Your task to perform on an android device: Go to Yahoo.com Image 0: 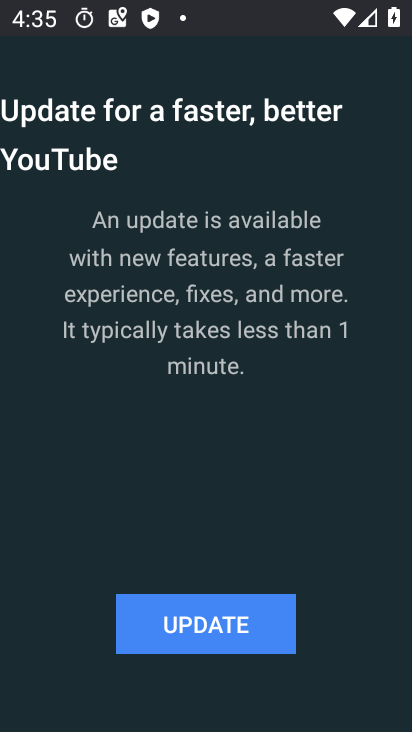
Step 0: press home button
Your task to perform on an android device: Go to Yahoo.com Image 1: 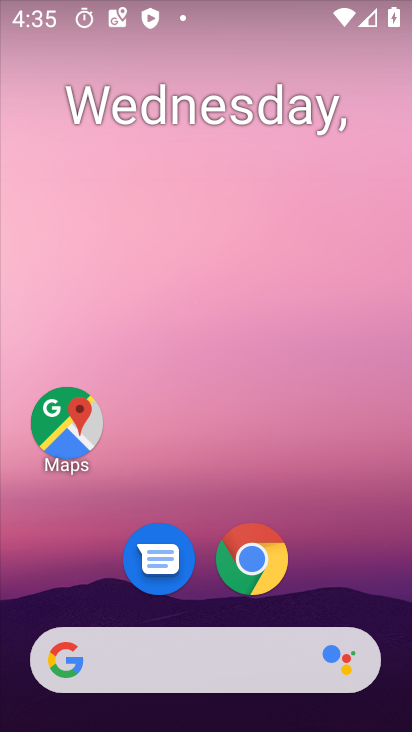
Step 1: click (262, 556)
Your task to perform on an android device: Go to Yahoo.com Image 2: 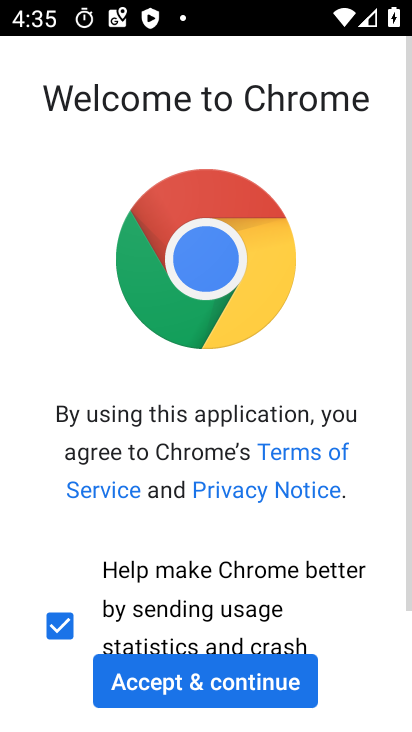
Step 2: click (244, 671)
Your task to perform on an android device: Go to Yahoo.com Image 3: 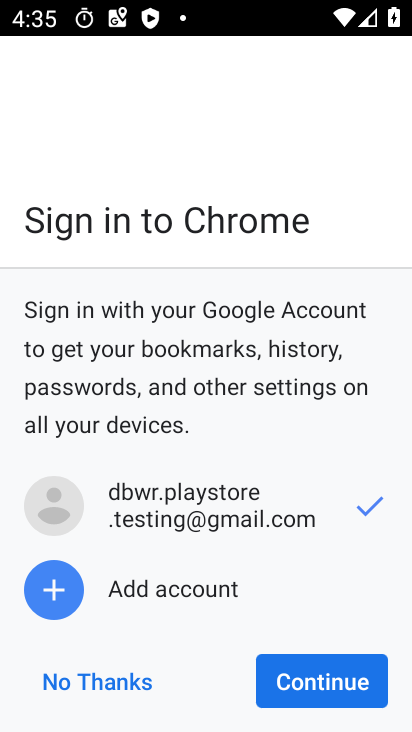
Step 3: click (371, 691)
Your task to perform on an android device: Go to Yahoo.com Image 4: 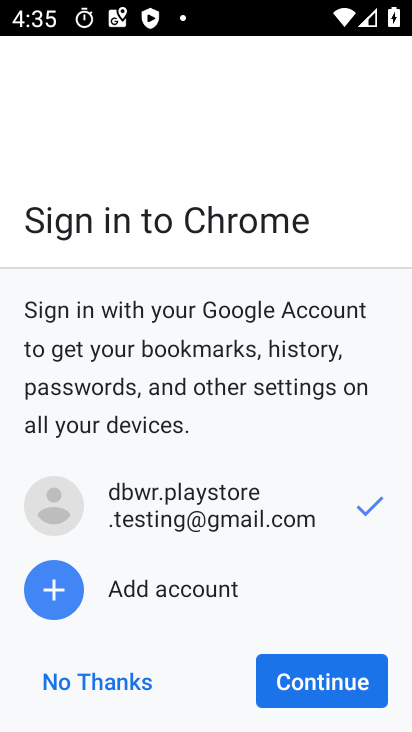
Step 4: click (369, 689)
Your task to perform on an android device: Go to Yahoo.com Image 5: 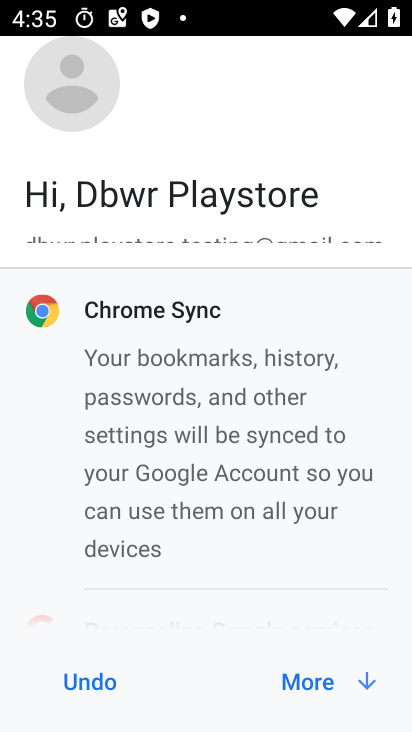
Step 5: click (369, 688)
Your task to perform on an android device: Go to Yahoo.com Image 6: 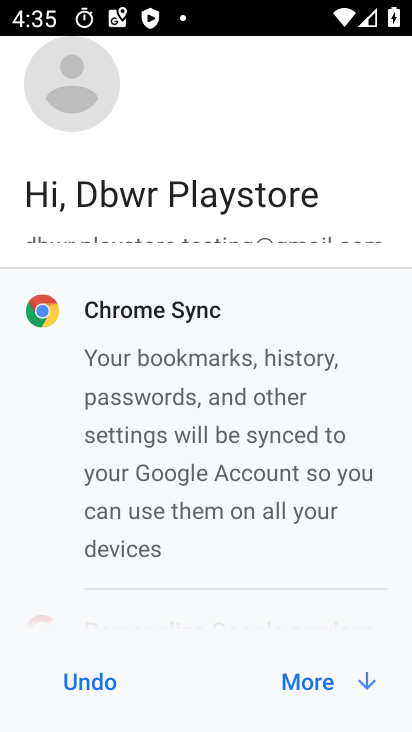
Step 6: click (369, 688)
Your task to perform on an android device: Go to Yahoo.com Image 7: 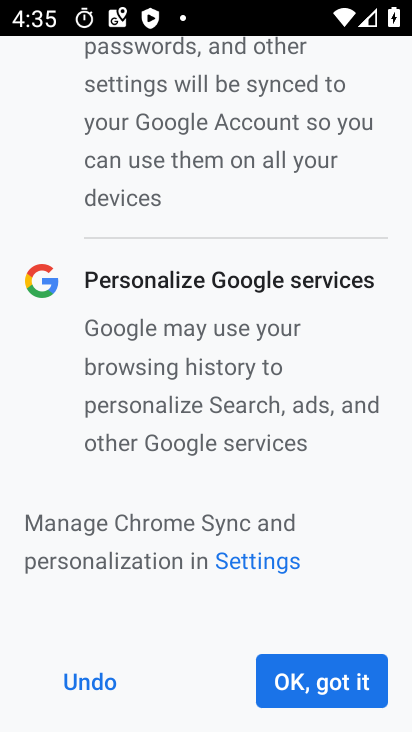
Step 7: click (366, 689)
Your task to perform on an android device: Go to Yahoo.com Image 8: 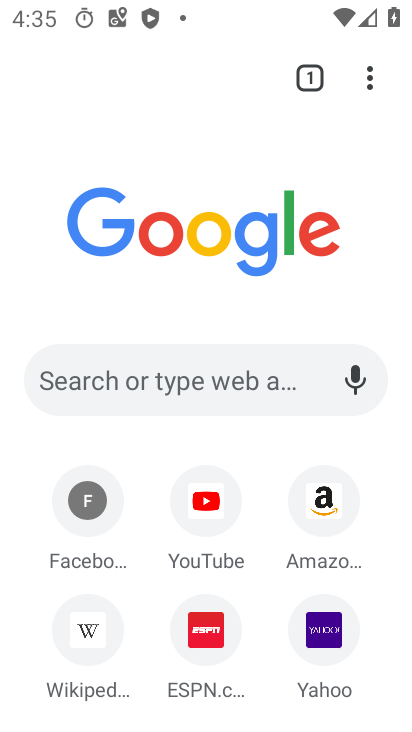
Step 8: click (316, 629)
Your task to perform on an android device: Go to Yahoo.com Image 9: 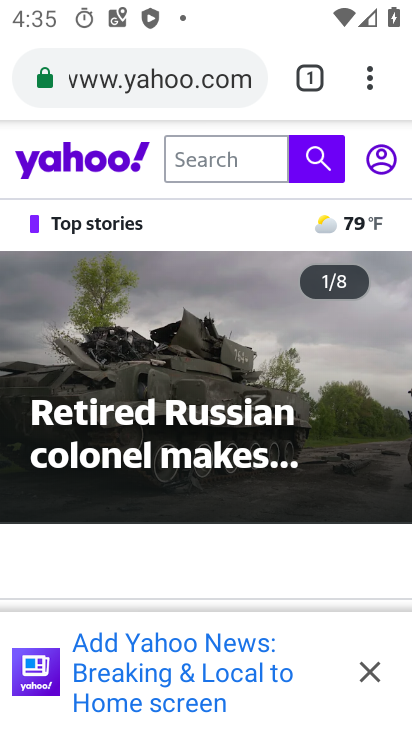
Step 9: task complete